Your task to perform on an android device: add a contact in the contacts app Image 0: 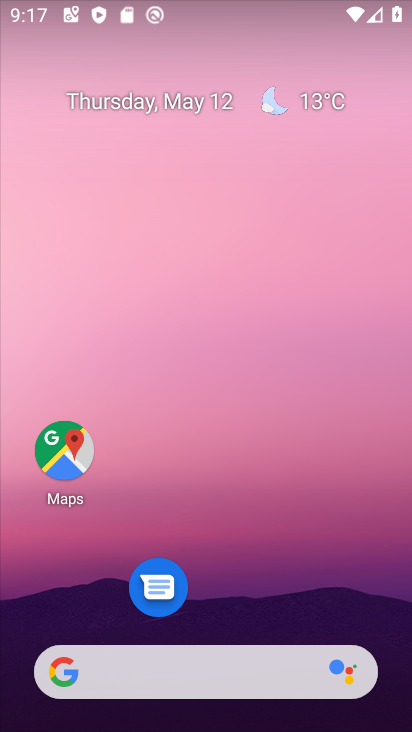
Step 0: drag from (224, 642) to (174, 18)
Your task to perform on an android device: add a contact in the contacts app Image 1: 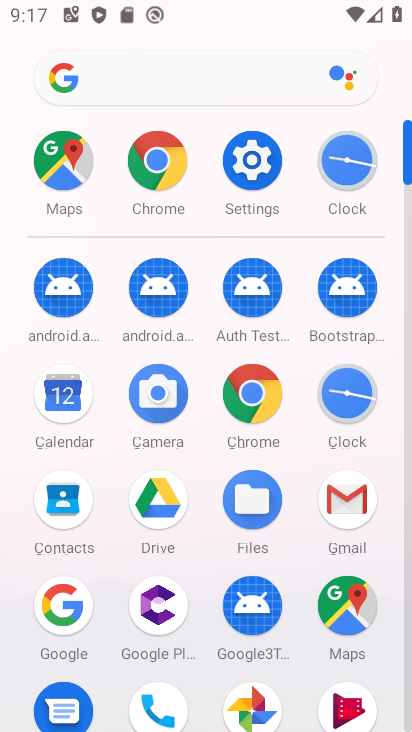
Step 1: click (154, 699)
Your task to perform on an android device: add a contact in the contacts app Image 2: 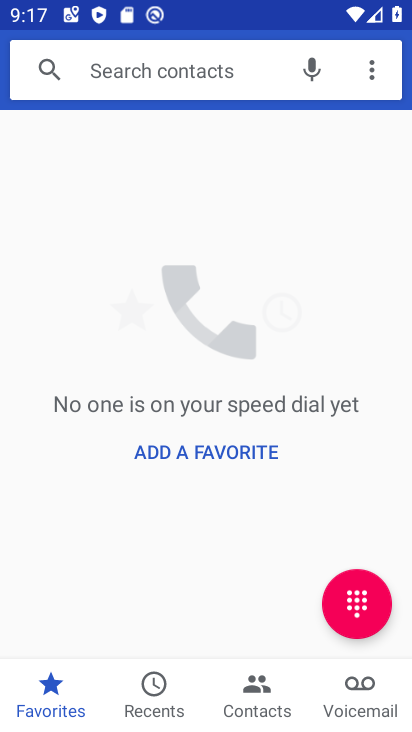
Step 2: click (277, 694)
Your task to perform on an android device: add a contact in the contacts app Image 3: 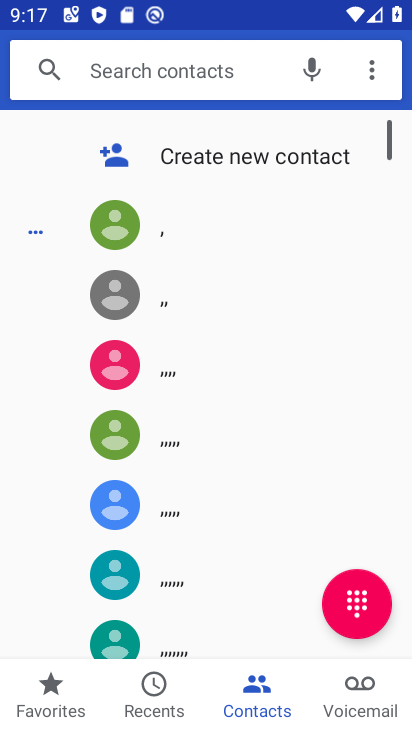
Step 3: click (247, 144)
Your task to perform on an android device: add a contact in the contacts app Image 4: 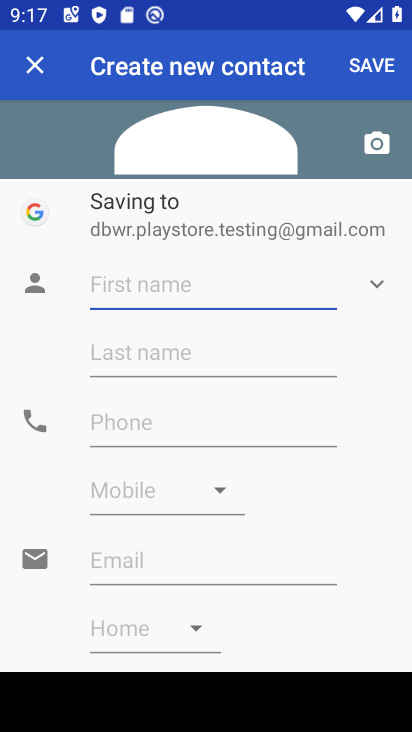
Step 4: type "jinh"
Your task to perform on an android device: add a contact in the contacts app Image 5: 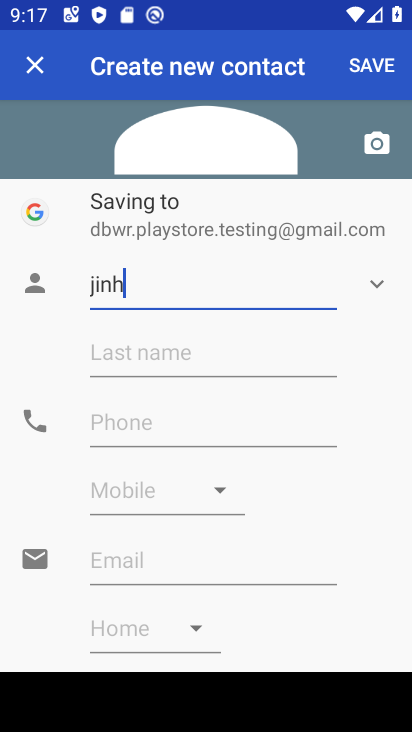
Step 5: click (222, 432)
Your task to perform on an android device: add a contact in the contacts app Image 6: 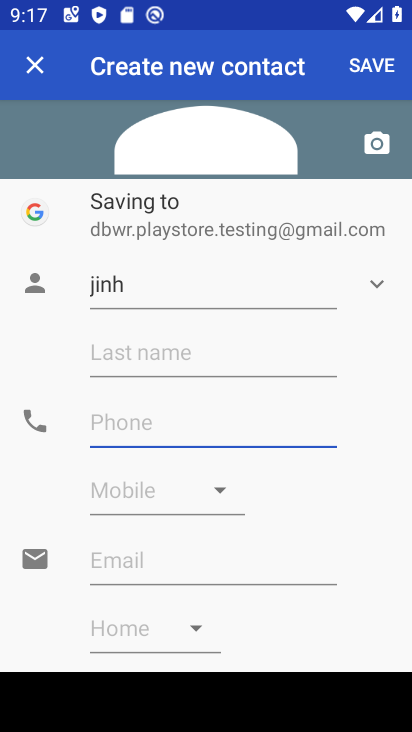
Step 6: type "7890987657"
Your task to perform on an android device: add a contact in the contacts app Image 7: 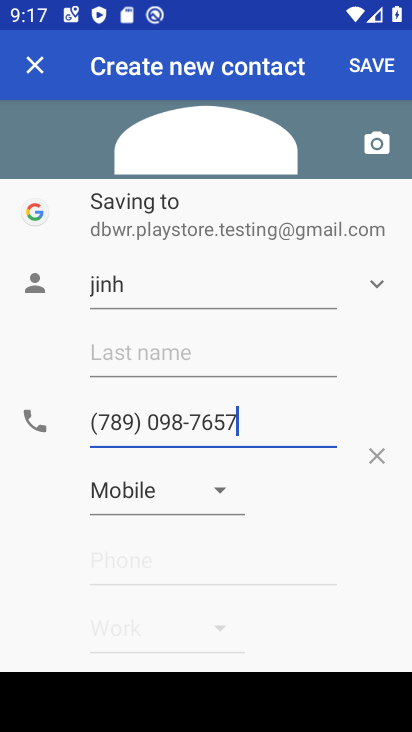
Step 7: type ""
Your task to perform on an android device: add a contact in the contacts app Image 8: 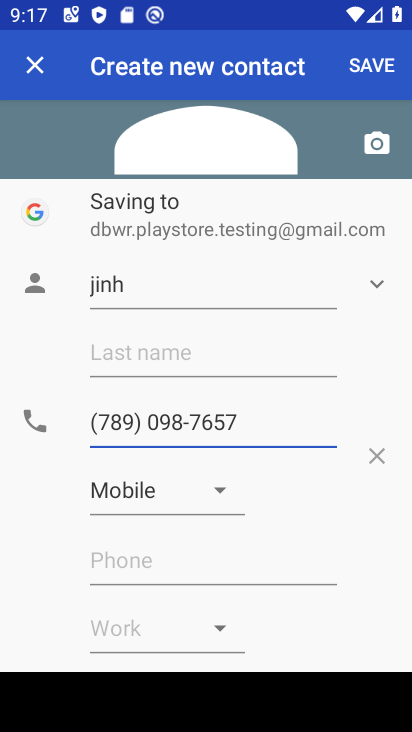
Step 8: click (372, 63)
Your task to perform on an android device: add a contact in the contacts app Image 9: 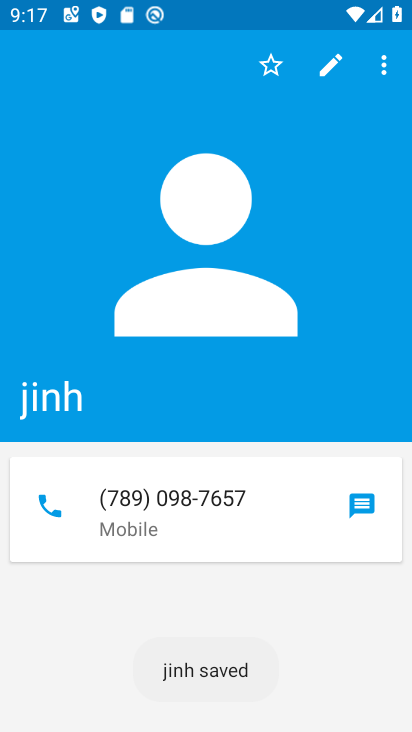
Step 9: task complete